Your task to perform on an android device: delete the emails in spam in the gmail app Image 0: 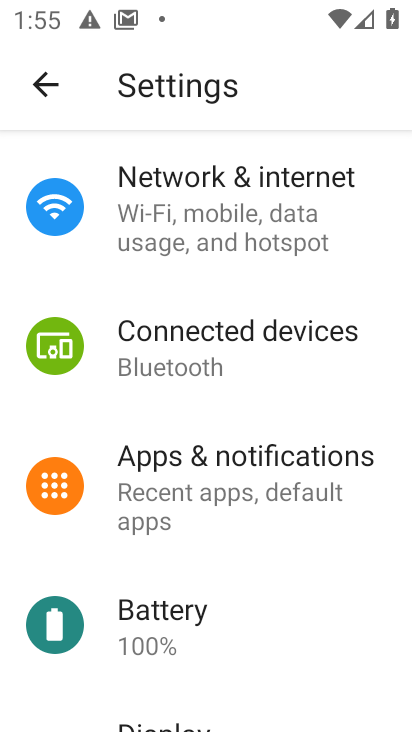
Step 0: press home button
Your task to perform on an android device: delete the emails in spam in the gmail app Image 1: 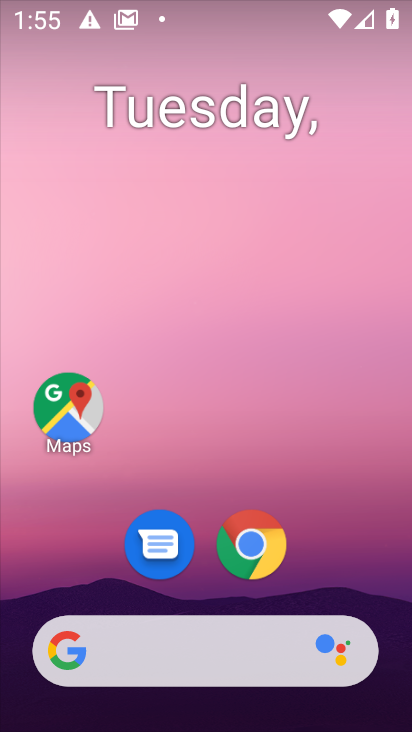
Step 1: drag from (138, 661) to (213, 51)
Your task to perform on an android device: delete the emails in spam in the gmail app Image 2: 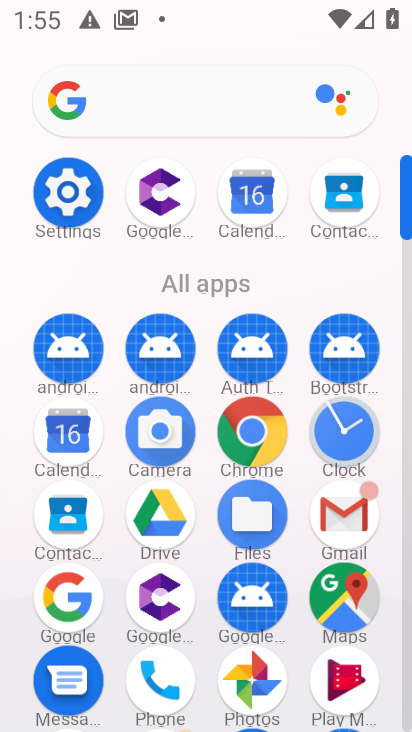
Step 2: click (344, 511)
Your task to perform on an android device: delete the emails in spam in the gmail app Image 3: 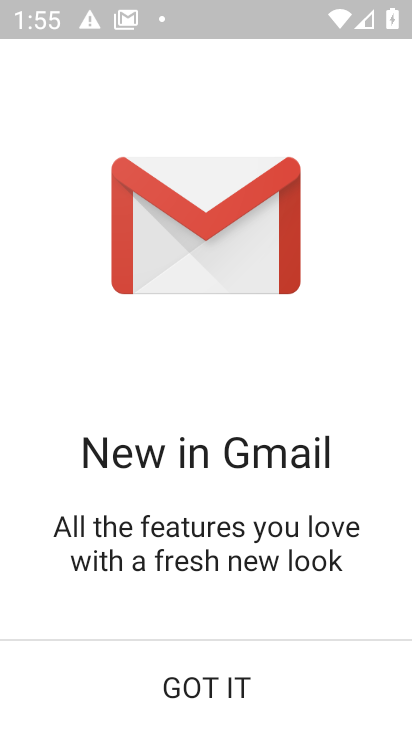
Step 3: click (203, 697)
Your task to perform on an android device: delete the emails in spam in the gmail app Image 4: 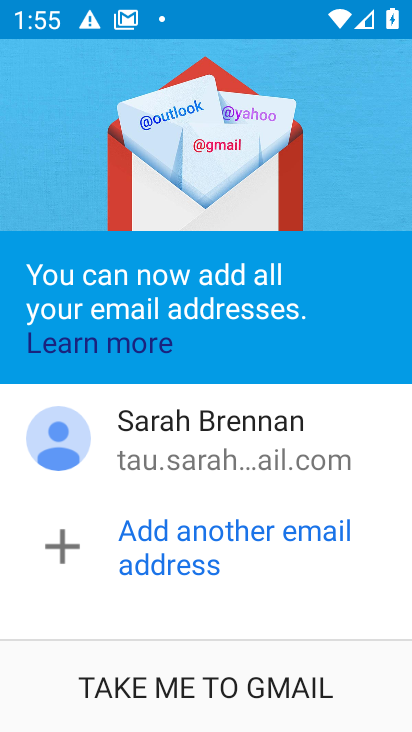
Step 4: click (203, 697)
Your task to perform on an android device: delete the emails in spam in the gmail app Image 5: 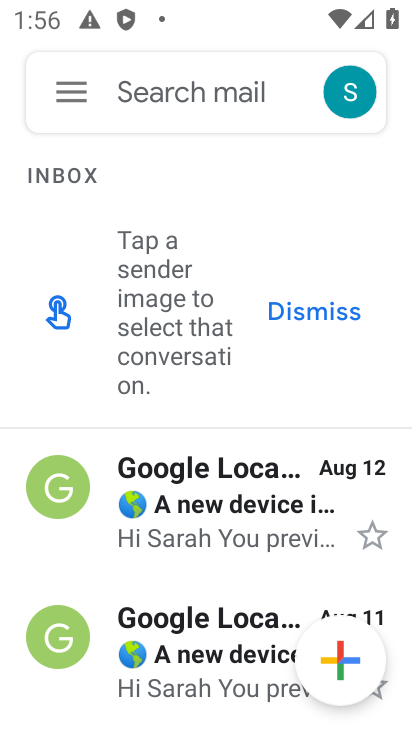
Step 5: click (61, 97)
Your task to perform on an android device: delete the emails in spam in the gmail app Image 6: 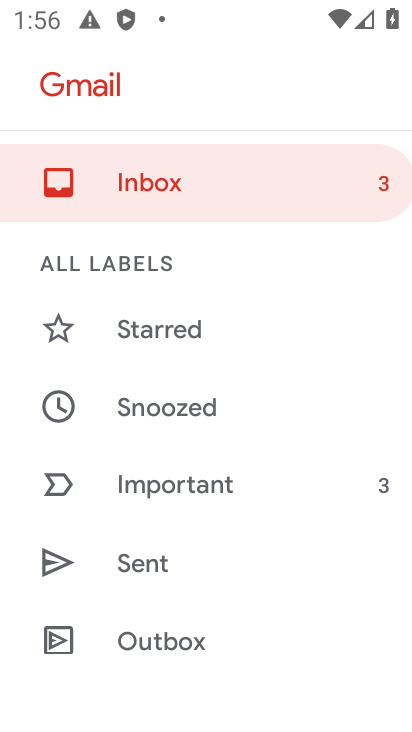
Step 6: drag from (176, 538) to (222, 445)
Your task to perform on an android device: delete the emails in spam in the gmail app Image 7: 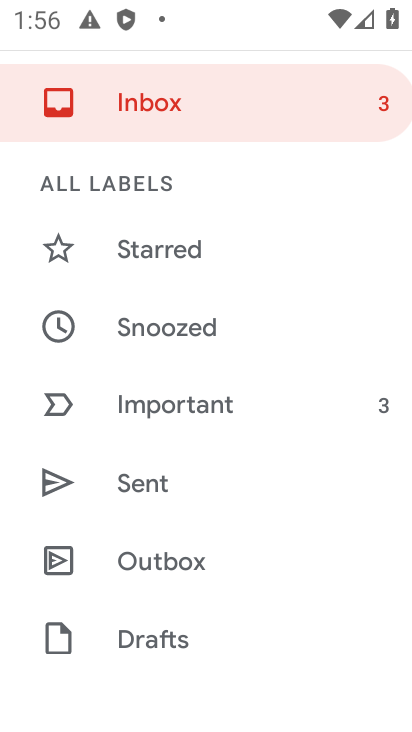
Step 7: drag from (154, 598) to (214, 494)
Your task to perform on an android device: delete the emails in spam in the gmail app Image 8: 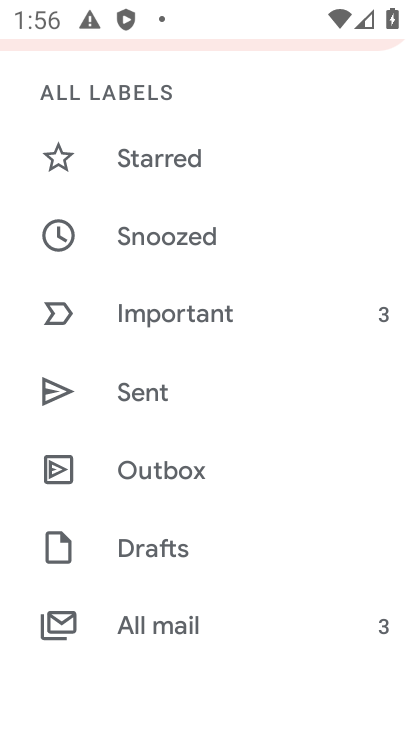
Step 8: drag from (147, 580) to (225, 473)
Your task to perform on an android device: delete the emails in spam in the gmail app Image 9: 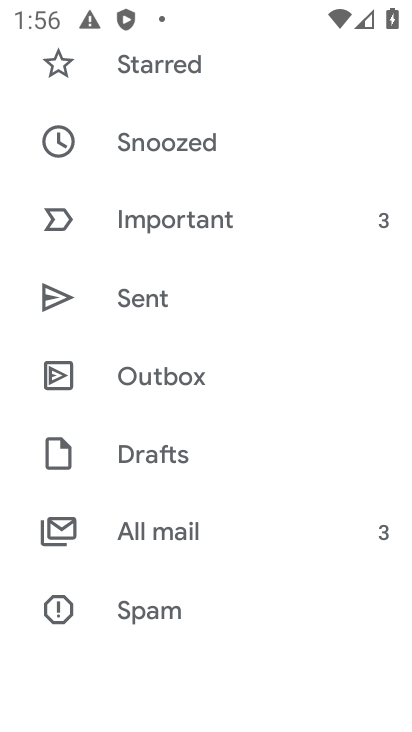
Step 9: drag from (161, 588) to (236, 476)
Your task to perform on an android device: delete the emails in spam in the gmail app Image 10: 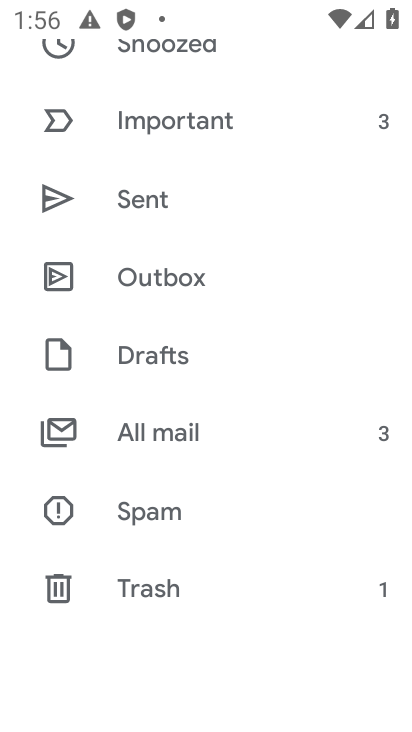
Step 10: click (160, 509)
Your task to perform on an android device: delete the emails in spam in the gmail app Image 11: 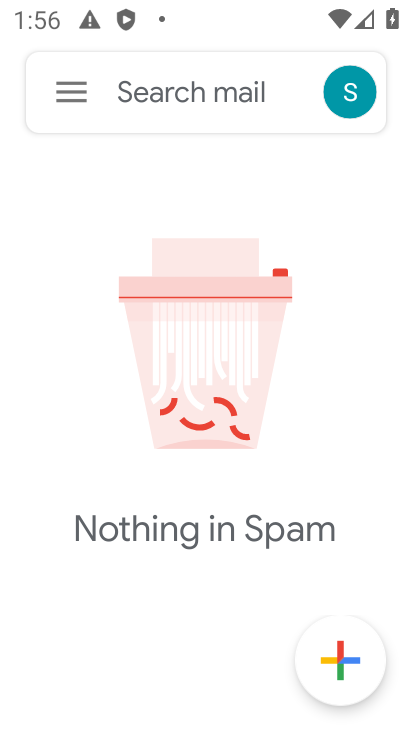
Step 11: task complete